Your task to perform on an android device: turn off translation in the chrome app Image 0: 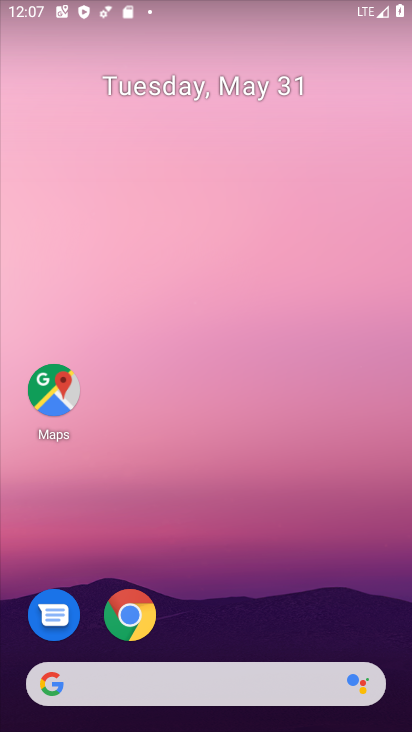
Step 0: drag from (207, 624) to (239, 15)
Your task to perform on an android device: turn off translation in the chrome app Image 1: 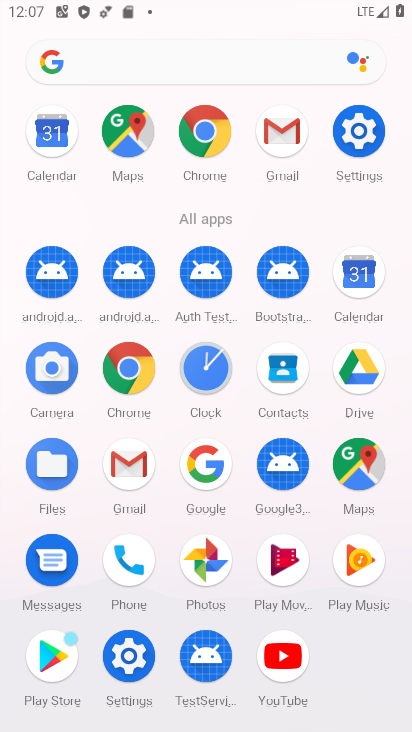
Step 1: click (139, 381)
Your task to perform on an android device: turn off translation in the chrome app Image 2: 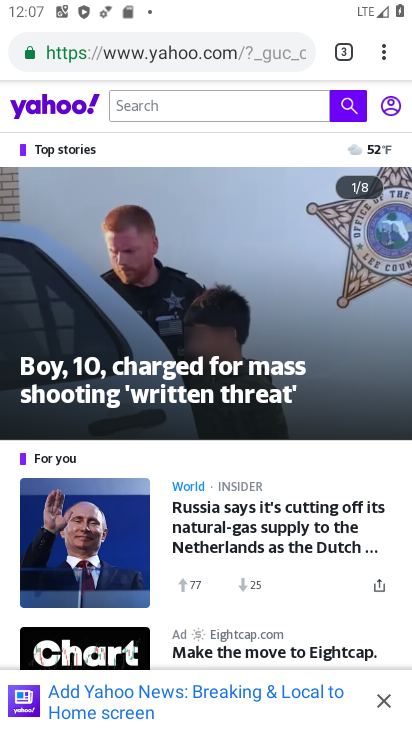
Step 2: click (378, 46)
Your task to perform on an android device: turn off translation in the chrome app Image 3: 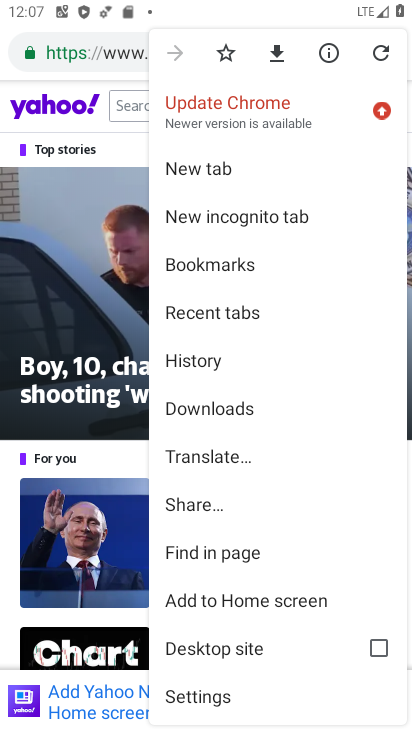
Step 3: click (215, 685)
Your task to perform on an android device: turn off translation in the chrome app Image 4: 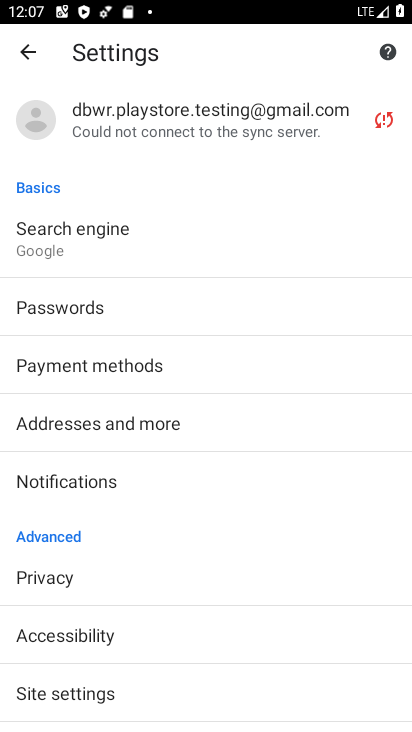
Step 4: drag from (83, 533) to (133, 237)
Your task to perform on an android device: turn off translation in the chrome app Image 5: 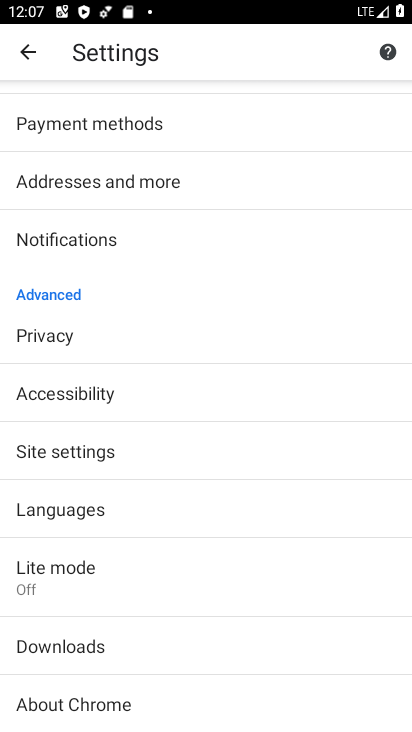
Step 5: click (91, 503)
Your task to perform on an android device: turn off translation in the chrome app Image 6: 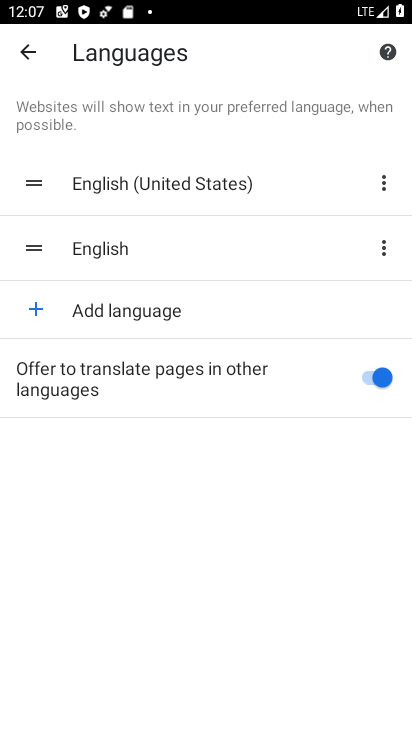
Step 6: click (352, 381)
Your task to perform on an android device: turn off translation in the chrome app Image 7: 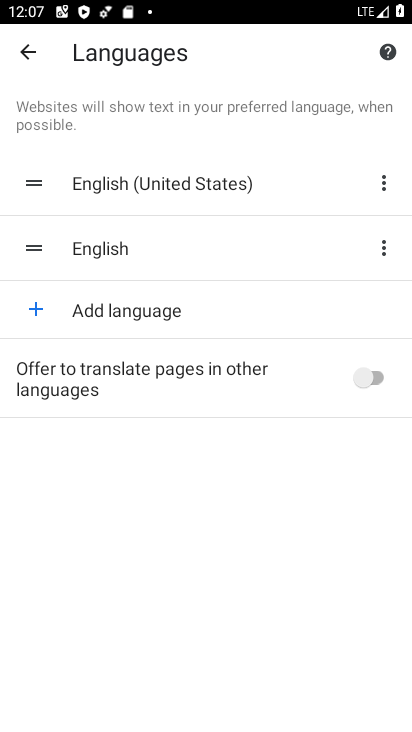
Step 7: task complete